Your task to perform on an android device: Open the calendar app, open the side menu, and click the "Day" option Image 0: 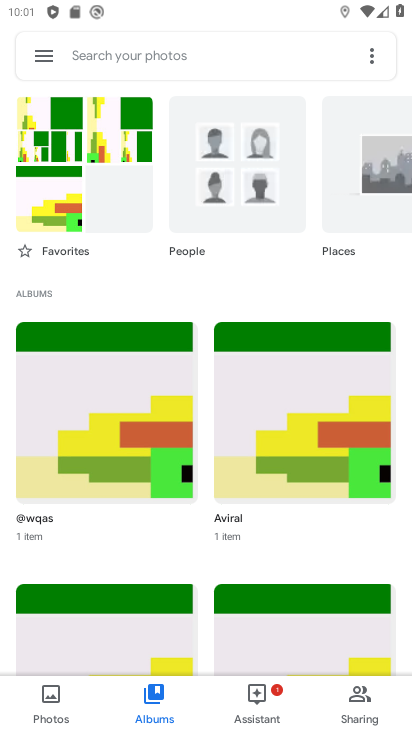
Step 0: press home button
Your task to perform on an android device: Open the calendar app, open the side menu, and click the "Day" option Image 1: 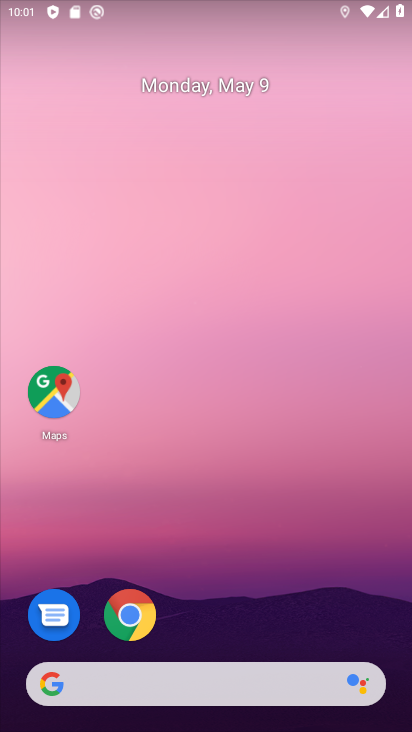
Step 1: drag from (210, 651) to (267, 210)
Your task to perform on an android device: Open the calendar app, open the side menu, and click the "Day" option Image 2: 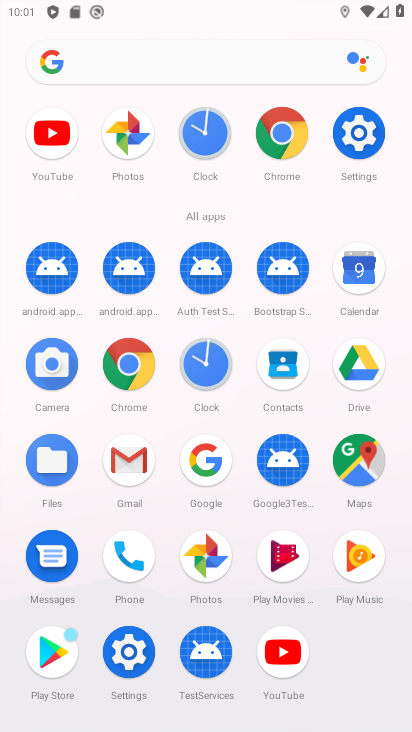
Step 2: click (369, 268)
Your task to perform on an android device: Open the calendar app, open the side menu, and click the "Day" option Image 3: 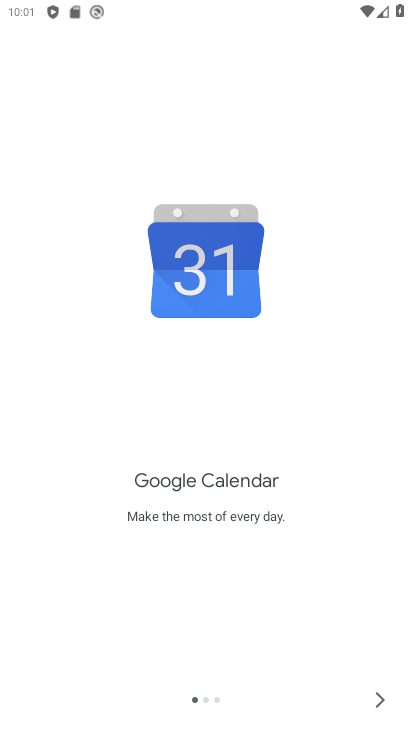
Step 3: click (376, 693)
Your task to perform on an android device: Open the calendar app, open the side menu, and click the "Day" option Image 4: 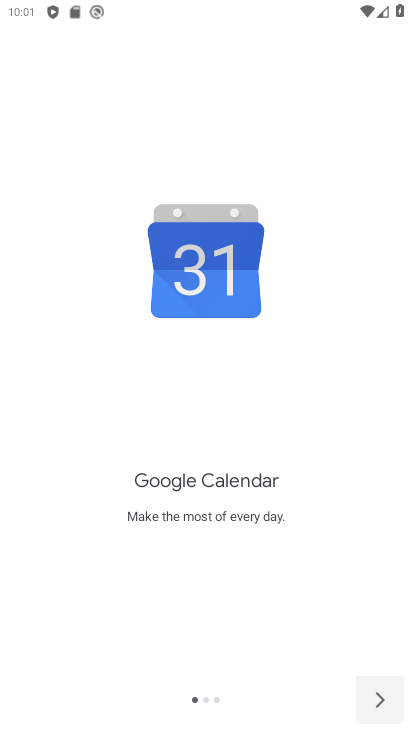
Step 4: click (376, 694)
Your task to perform on an android device: Open the calendar app, open the side menu, and click the "Day" option Image 5: 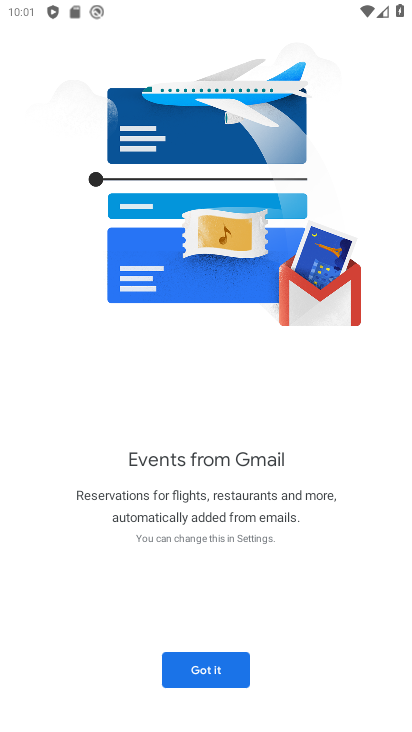
Step 5: click (198, 663)
Your task to perform on an android device: Open the calendar app, open the side menu, and click the "Day" option Image 6: 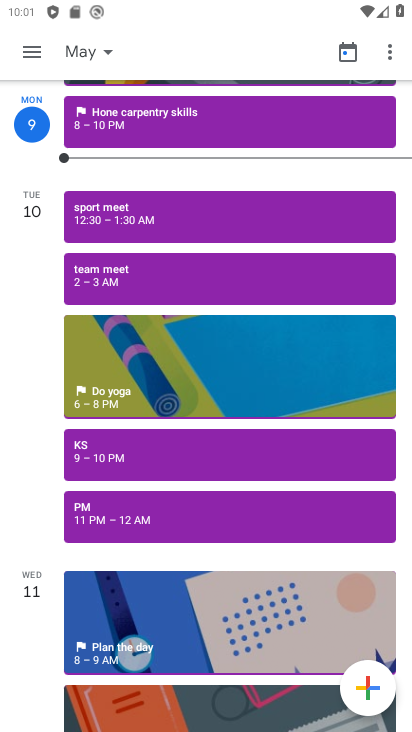
Step 6: click (33, 58)
Your task to perform on an android device: Open the calendar app, open the side menu, and click the "Day" option Image 7: 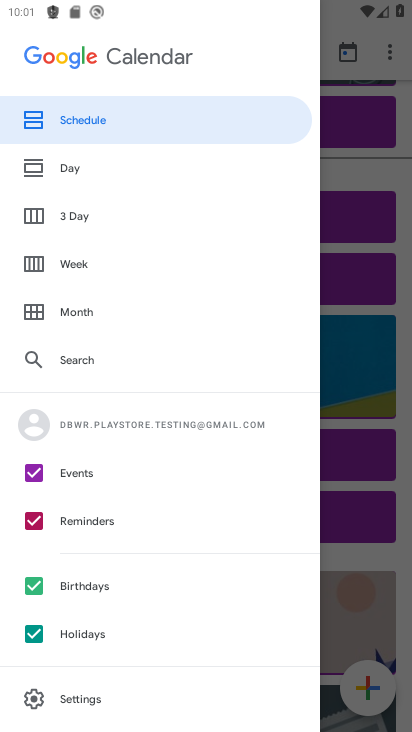
Step 7: click (93, 170)
Your task to perform on an android device: Open the calendar app, open the side menu, and click the "Day" option Image 8: 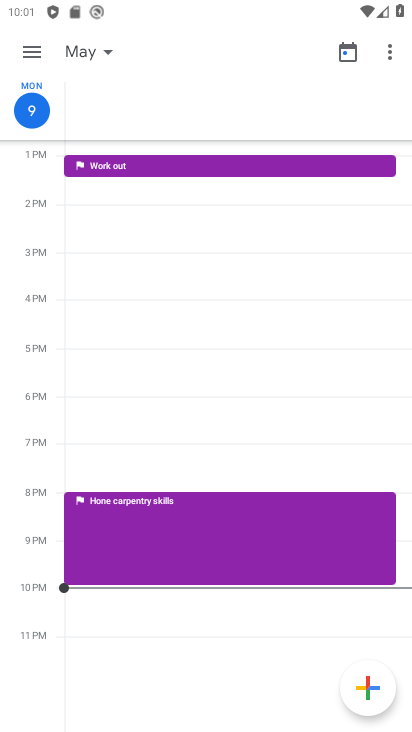
Step 8: task complete